Your task to perform on an android device: set default search engine in the chrome app Image 0: 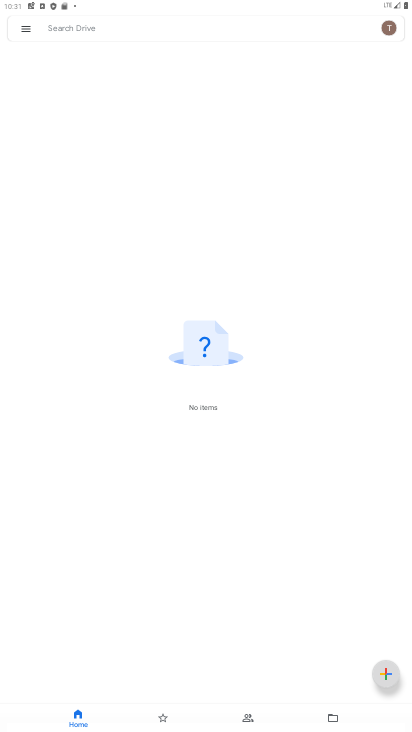
Step 0: press home button
Your task to perform on an android device: set default search engine in the chrome app Image 1: 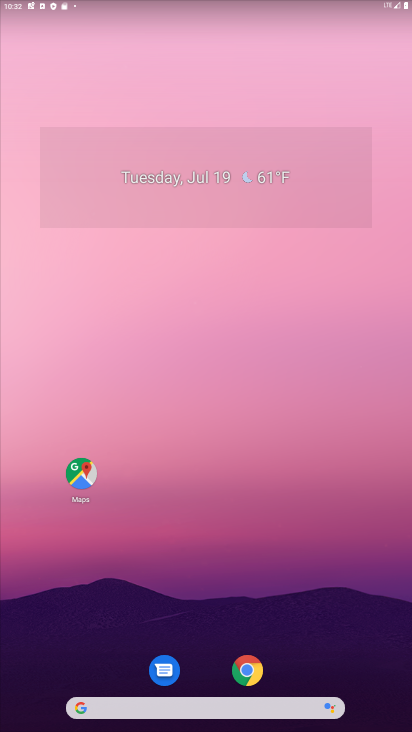
Step 1: click (253, 681)
Your task to perform on an android device: set default search engine in the chrome app Image 2: 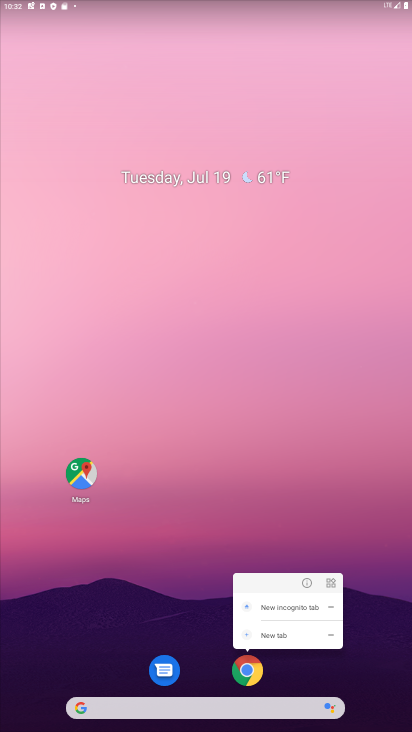
Step 2: click (253, 681)
Your task to perform on an android device: set default search engine in the chrome app Image 3: 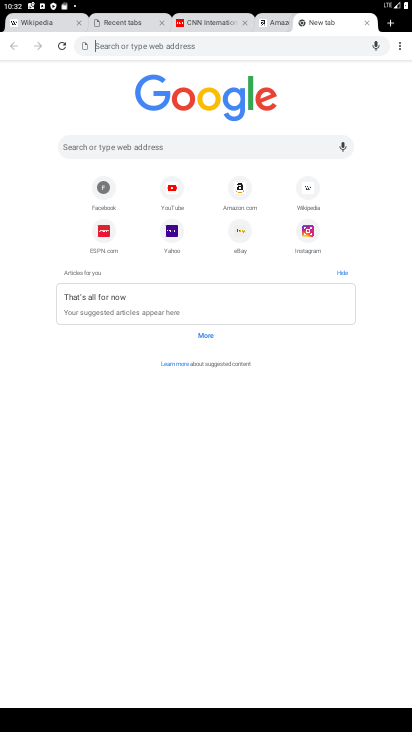
Step 3: click (398, 45)
Your task to perform on an android device: set default search engine in the chrome app Image 4: 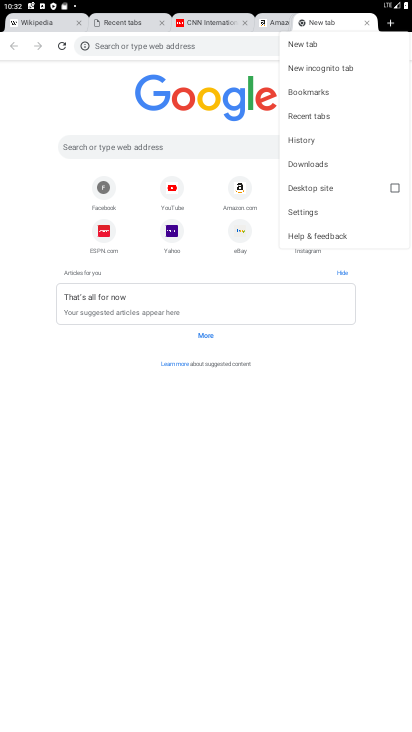
Step 4: click (311, 207)
Your task to perform on an android device: set default search engine in the chrome app Image 5: 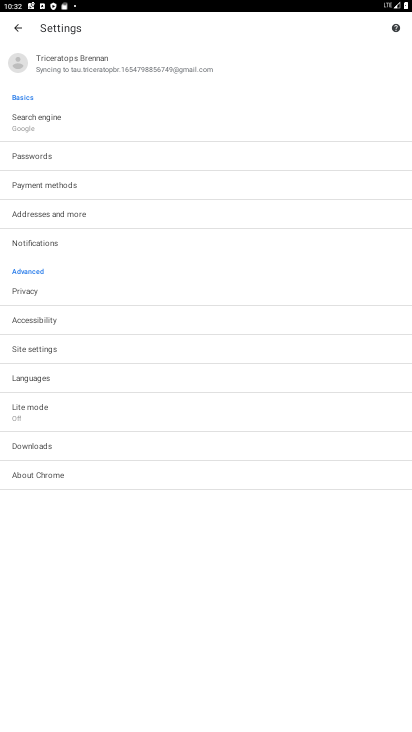
Step 5: click (22, 121)
Your task to perform on an android device: set default search engine in the chrome app Image 6: 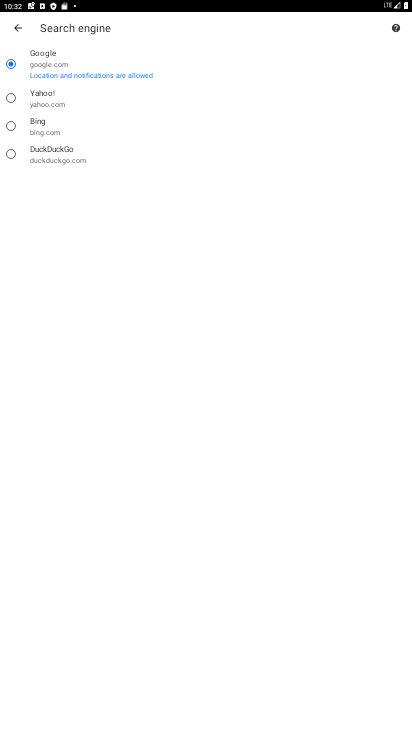
Step 6: task complete